Your task to perform on an android device: Go to sound settings Image 0: 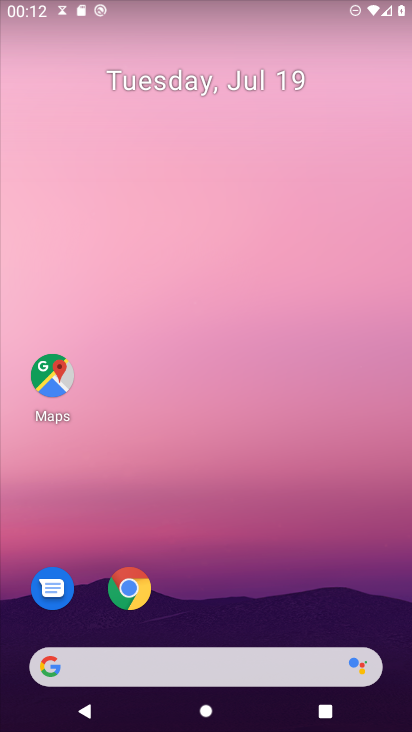
Step 0: press home button
Your task to perform on an android device: Go to sound settings Image 1: 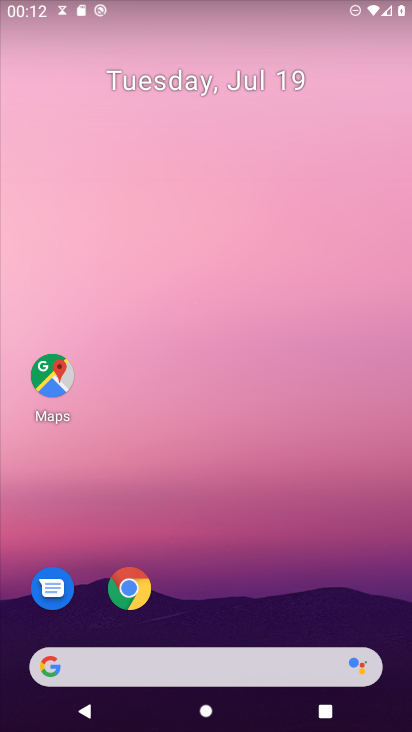
Step 1: drag from (315, 575) to (351, 72)
Your task to perform on an android device: Go to sound settings Image 2: 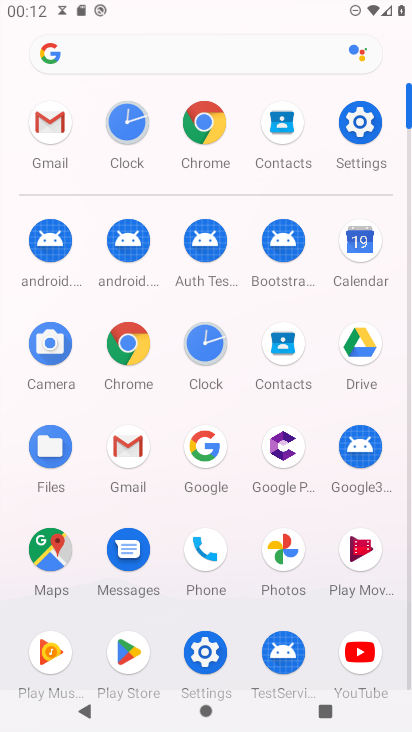
Step 2: click (357, 115)
Your task to perform on an android device: Go to sound settings Image 3: 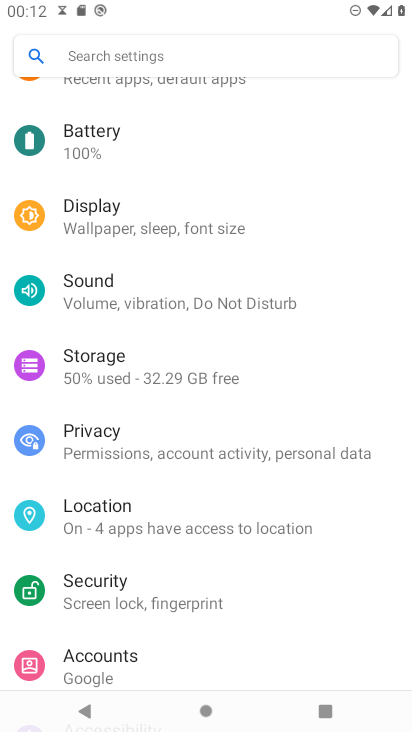
Step 3: click (177, 287)
Your task to perform on an android device: Go to sound settings Image 4: 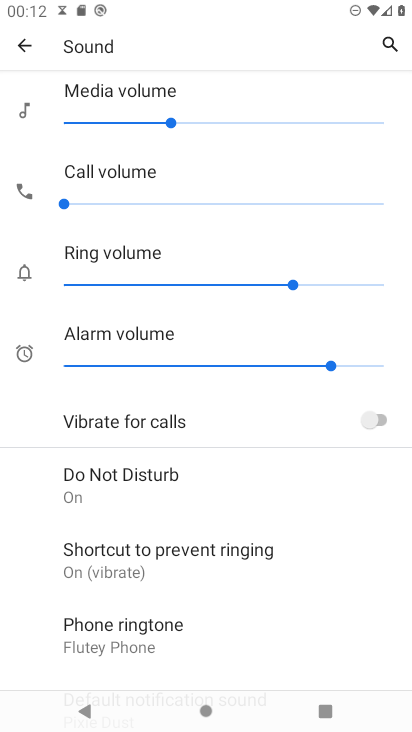
Step 4: task complete